Your task to perform on an android device: change notification settings in the gmail app Image 0: 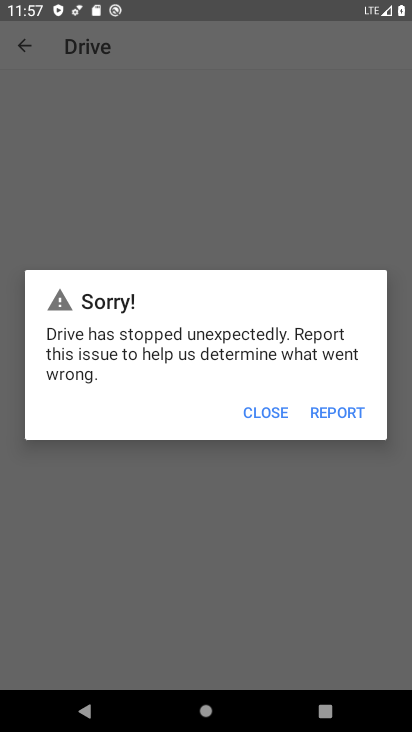
Step 0: press home button
Your task to perform on an android device: change notification settings in the gmail app Image 1: 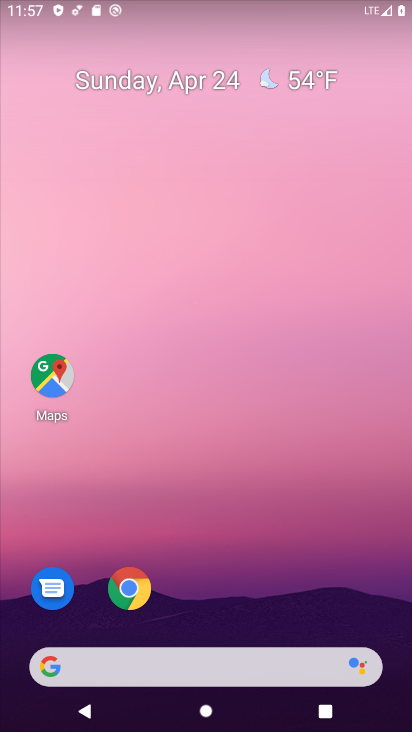
Step 1: drag from (216, 641) to (388, 465)
Your task to perform on an android device: change notification settings in the gmail app Image 2: 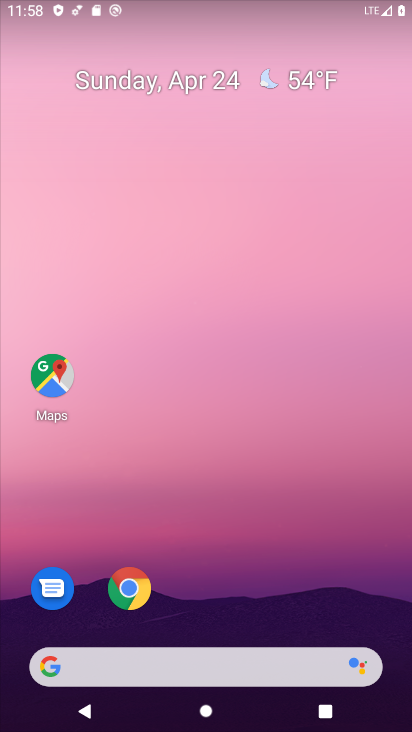
Step 2: drag from (233, 628) to (186, 64)
Your task to perform on an android device: change notification settings in the gmail app Image 3: 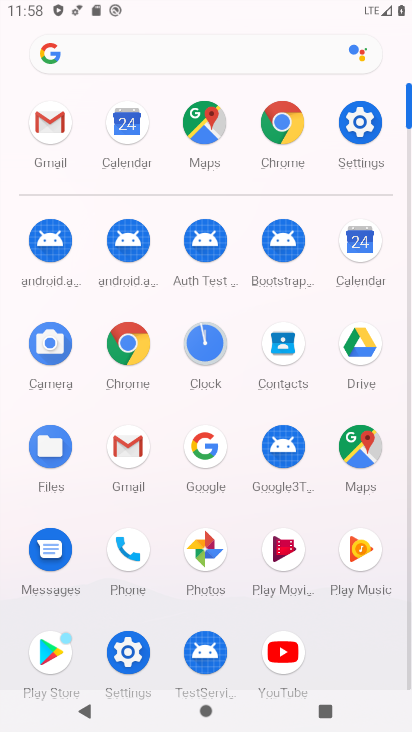
Step 3: click (56, 135)
Your task to perform on an android device: change notification settings in the gmail app Image 4: 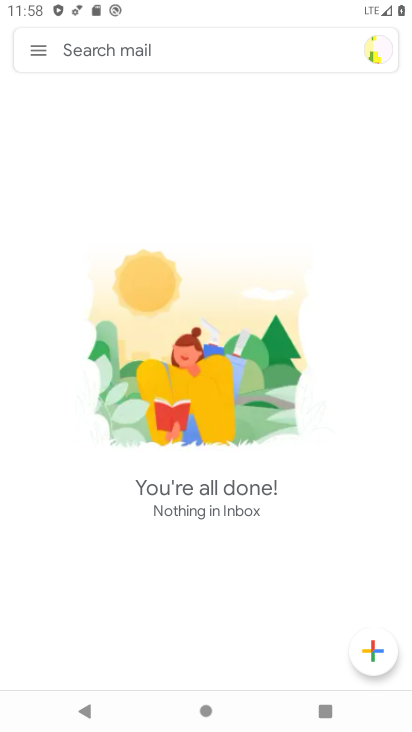
Step 4: click (44, 48)
Your task to perform on an android device: change notification settings in the gmail app Image 5: 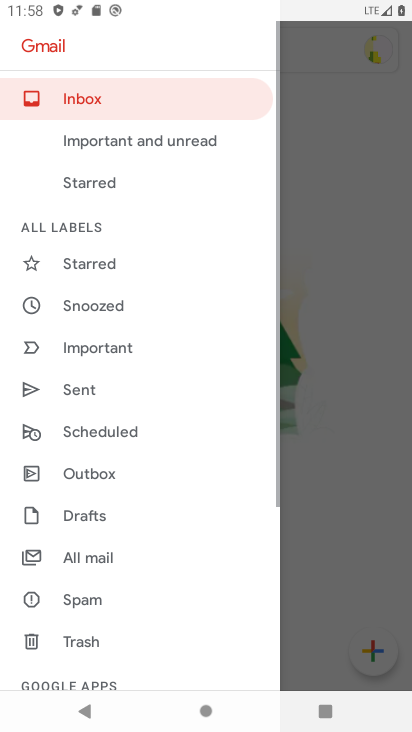
Step 5: drag from (120, 552) to (81, 216)
Your task to perform on an android device: change notification settings in the gmail app Image 6: 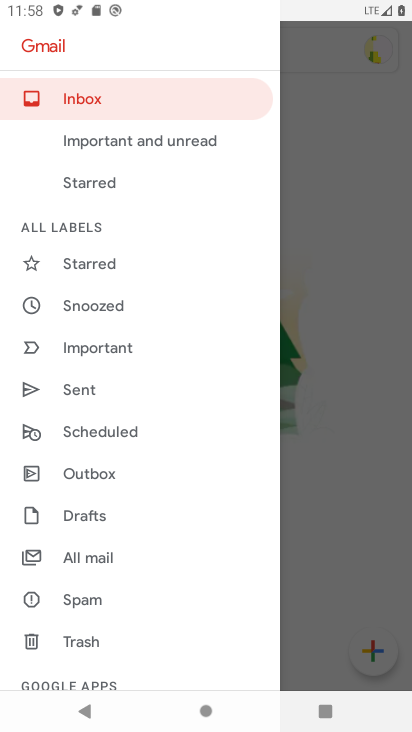
Step 6: drag from (133, 657) to (59, 151)
Your task to perform on an android device: change notification settings in the gmail app Image 7: 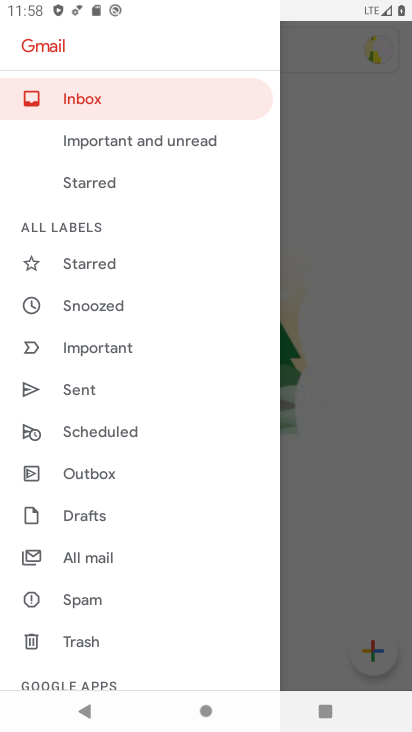
Step 7: drag from (105, 611) to (86, 135)
Your task to perform on an android device: change notification settings in the gmail app Image 8: 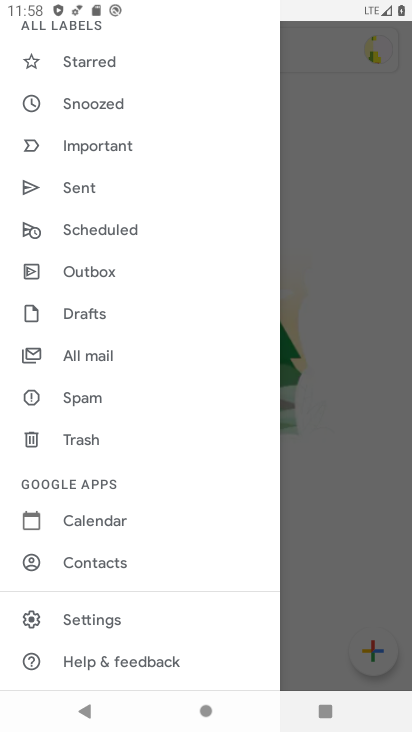
Step 8: click (92, 615)
Your task to perform on an android device: change notification settings in the gmail app Image 9: 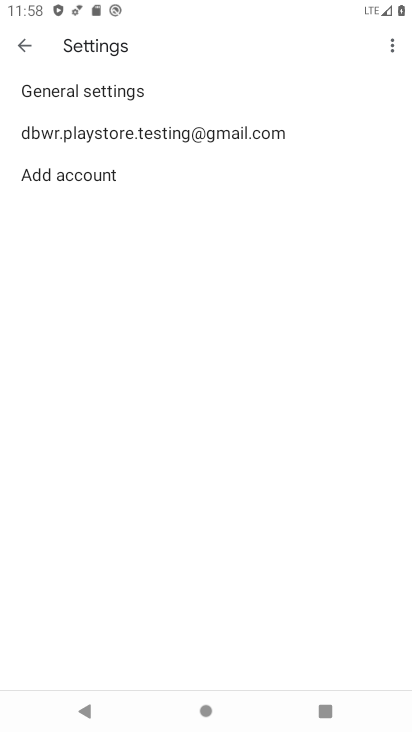
Step 9: click (127, 96)
Your task to perform on an android device: change notification settings in the gmail app Image 10: 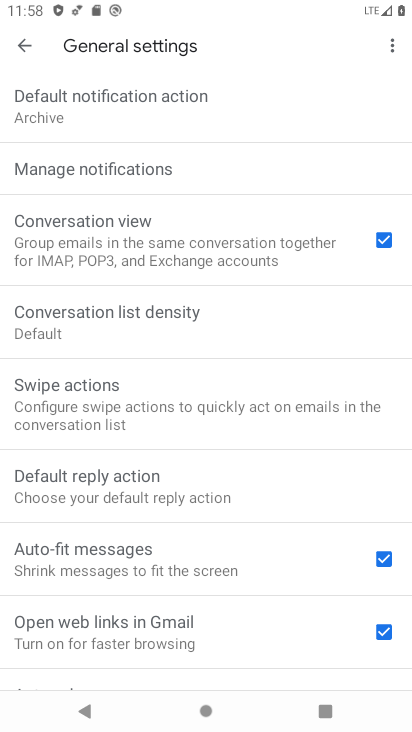
Step 10: click (108, 160)
Your task to perform on an android device: change notification settings in the gmail app Image 11: 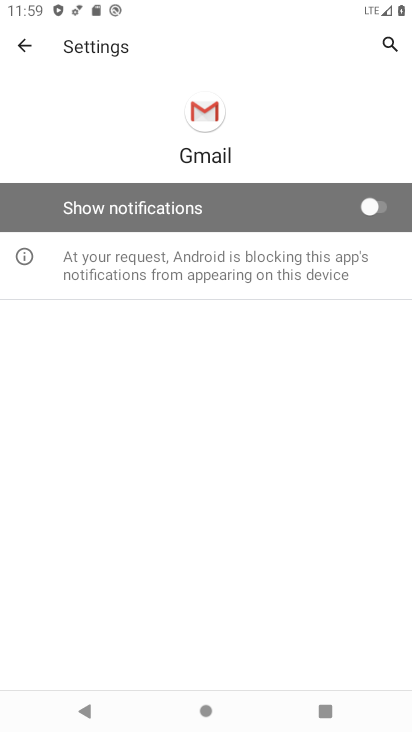
Step 11: task complete